Your task to perform on an android device: toggle priority inbox in the gmail app Image 0: 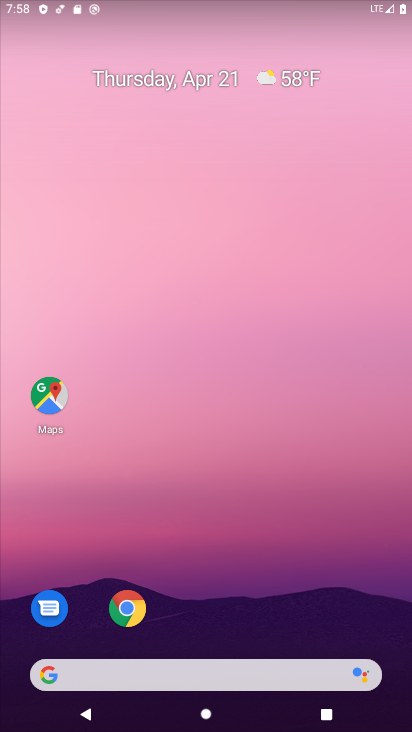
Step 0: drag from (294, 581) to (306, 158)
Your task to perform on an android device: toggle priority inbox in the gmail app Image 1: 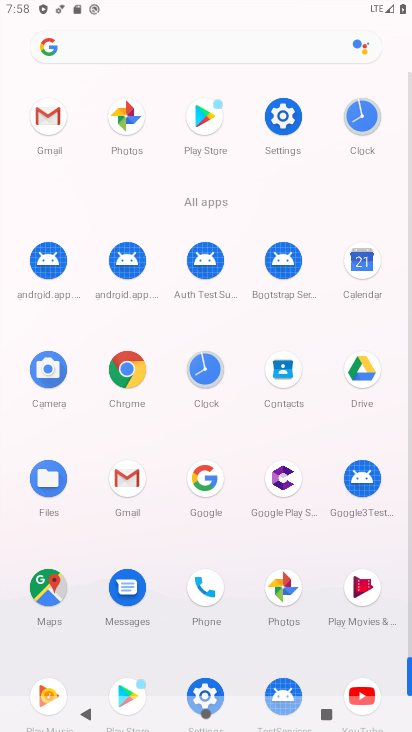
Step 1: click (46, 109)
Your task to perform on an android device: toggle priority inbox in the gmail app Image 2: 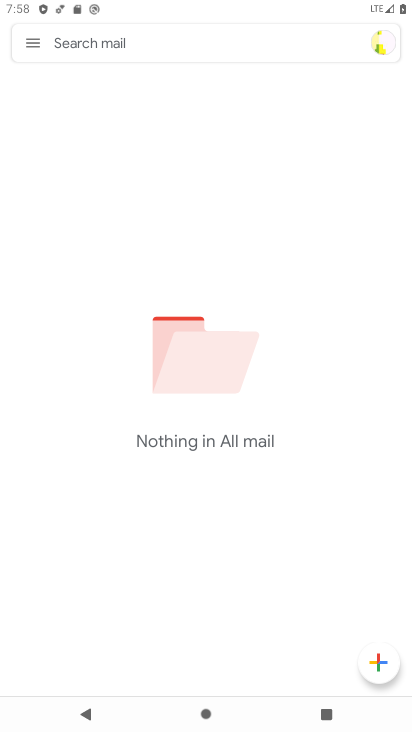
Step 2: click (31, 35)
Your task to perform on an android device: toggle priority inbox in the gmail app Image 3: 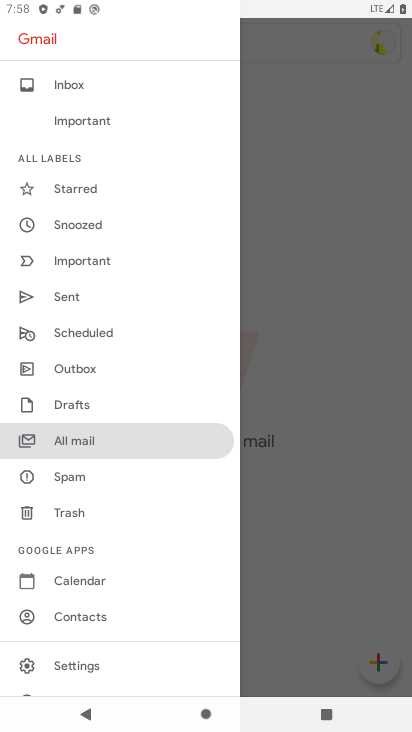
Step 3: click (88, 667)
Your task to perform on an android device: toggle priority inbox in the gmail app Image 4: 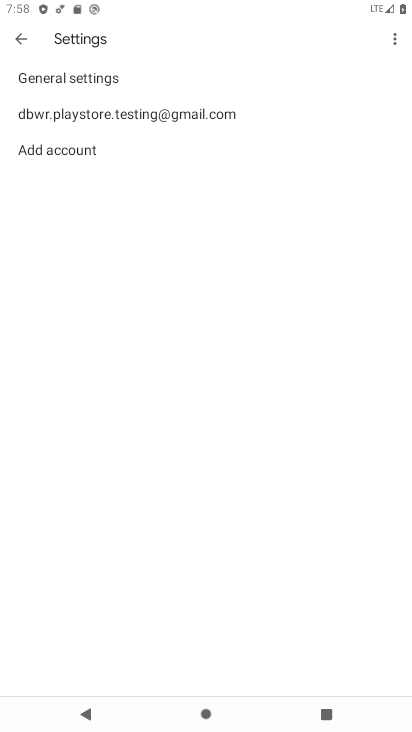
Step 4: click (187, 107)
Your task to perform on an android device: toggle priority inbox in the gmail app Image 5: 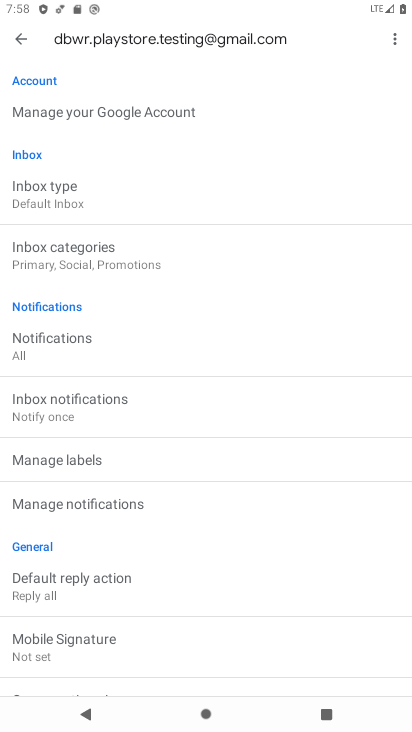
Step 5: click (67, 196)
Your task to perform on an android device: toggle priority inbox in the gmail app Image 6: 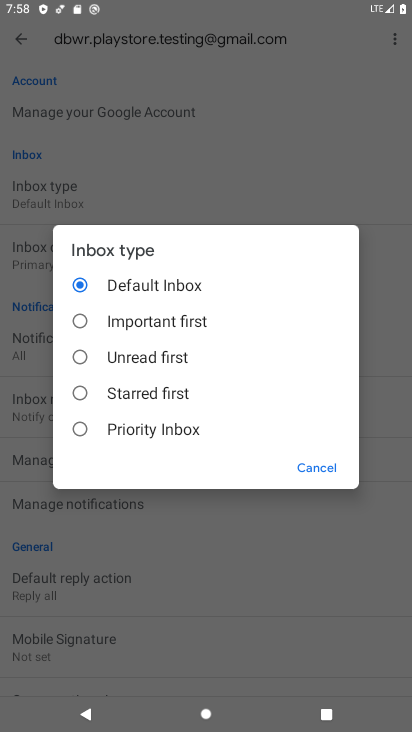
Step 6: click (75, 420)
Your task to perform on an android device: toggle priority inbox in the gmail app Image 7: 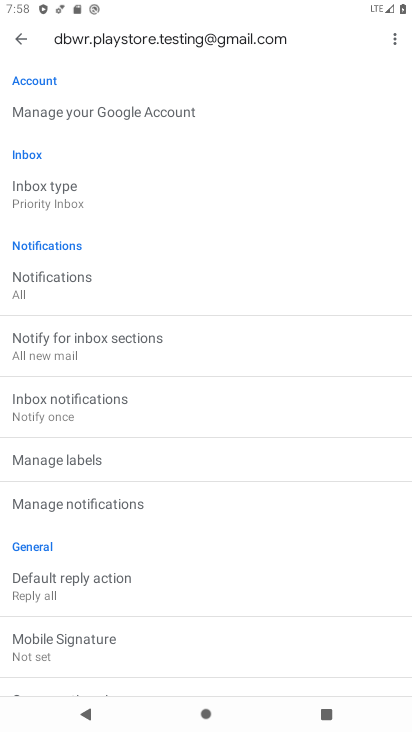
Step 7: task complete